Your task to perform on an android device: turn pop-ups on in chrome Image 0: 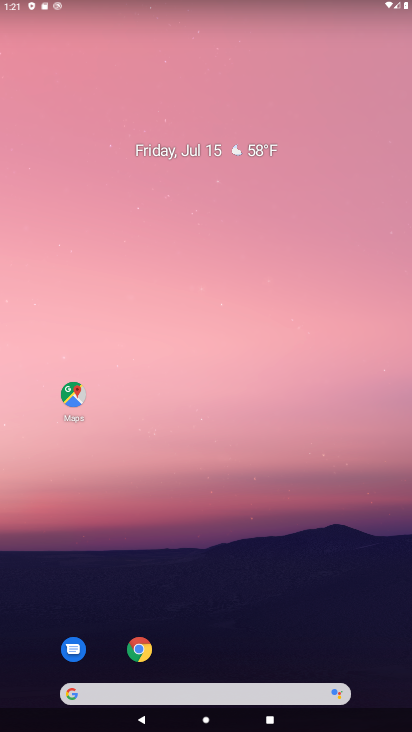
Step 0: drag from (160, 693) to (274, 140)
Your task to perform on an android device: turn pop-ups on in chrome Image 1: 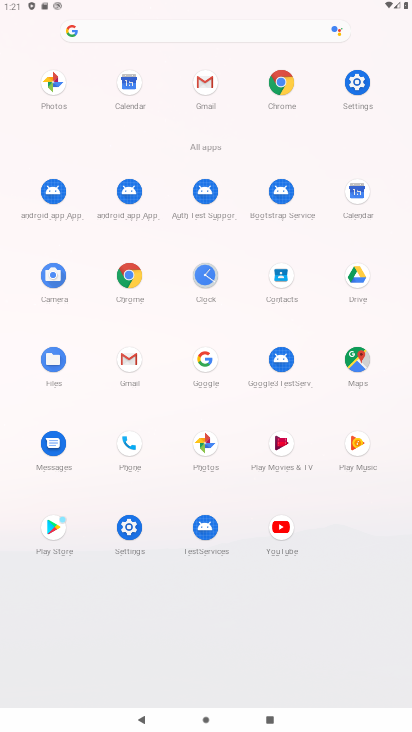
Step 1: click (141, 275)
Your task to perform on an android device: turn pop-ups on in chrome Image 2: 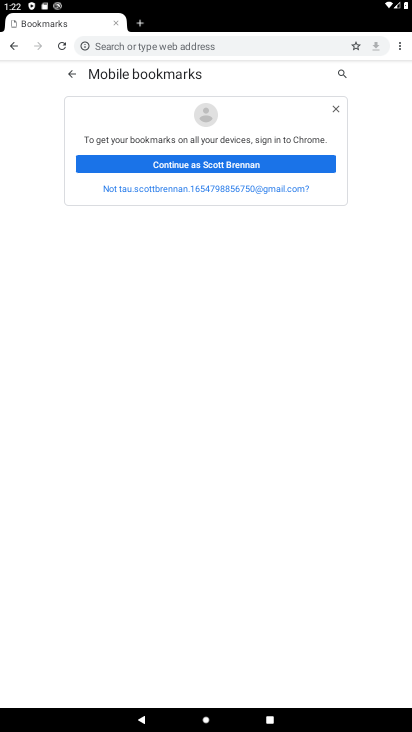
Step 2: click (392, 44)
Your task to perform on an android device: turn pop-ups on in chrome Image 3: 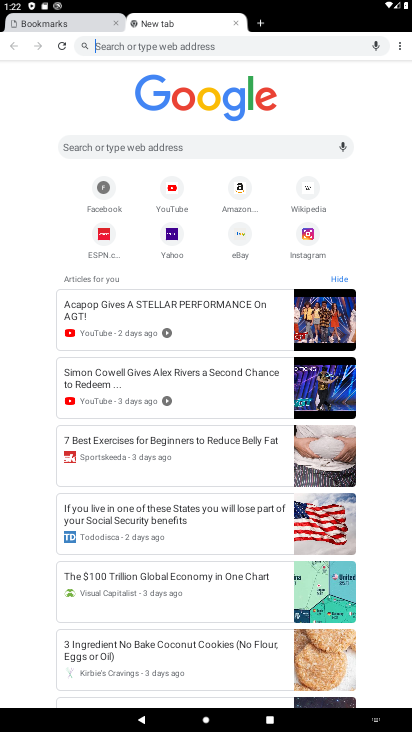
Step 3: drag from (398, 43) to (338, 214)
Your task to perform on an android device: turn pop-ups on in chrome Image 4: 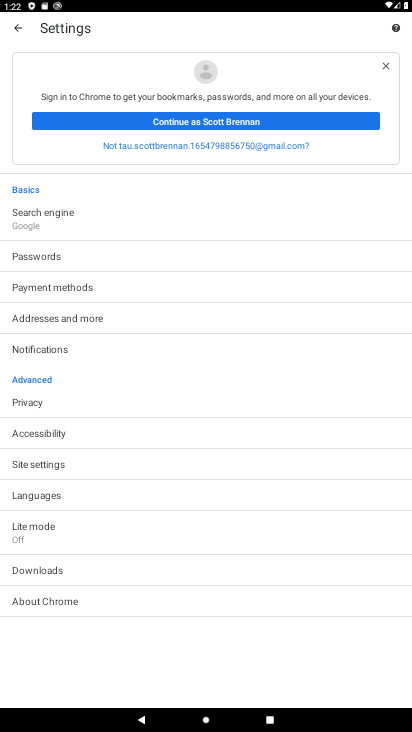
Step 4: click (60, 473)
Your task to perform on an android device: turn pop-ups on in chrome Image 5: 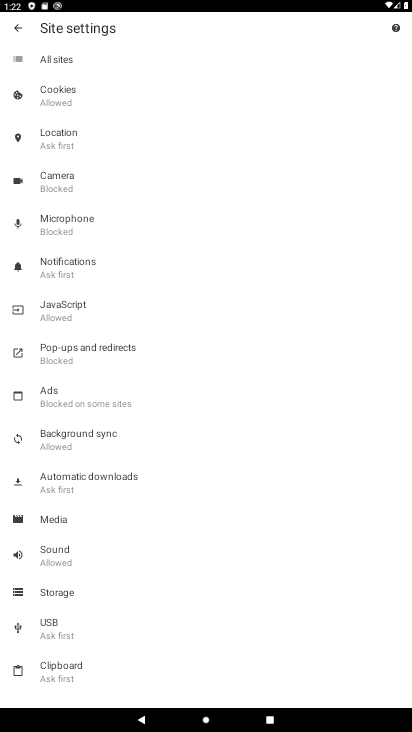
Step 5: click (66, 357)
Your task to perform on an android device: turn pop-ups on in chrome Image 6: 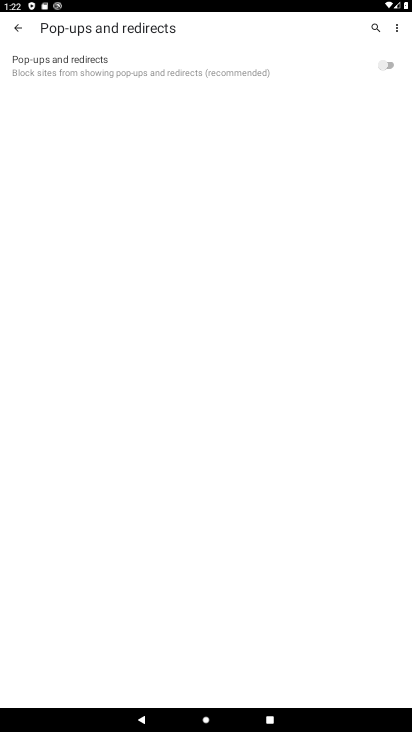
Step 6: click (388, 61)
Your task to perform on an android device: turn pop-ups on in chrome Image 7: 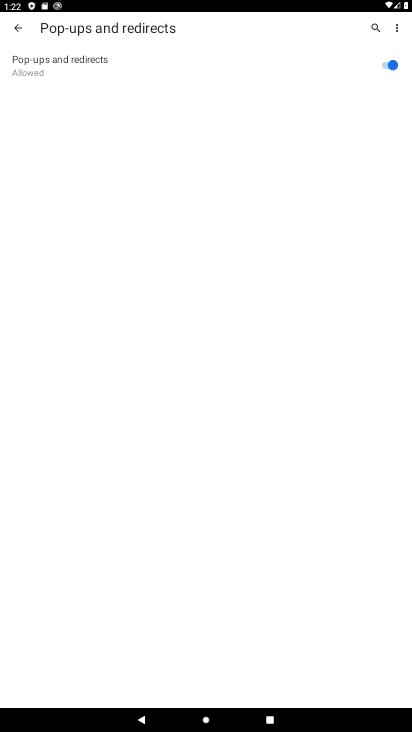
Step 7: task complete